Your task to perform on an android device: open chrome privacy settings Image 0: 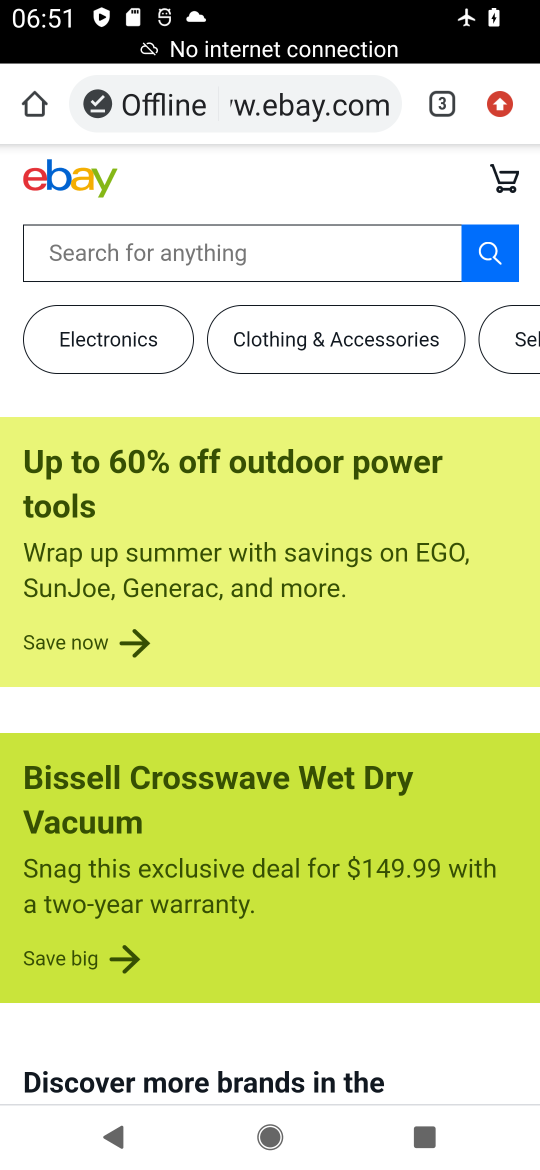
Step 0: press home button
Your task to perform on an android device: open chrome privacy settings Image 1: 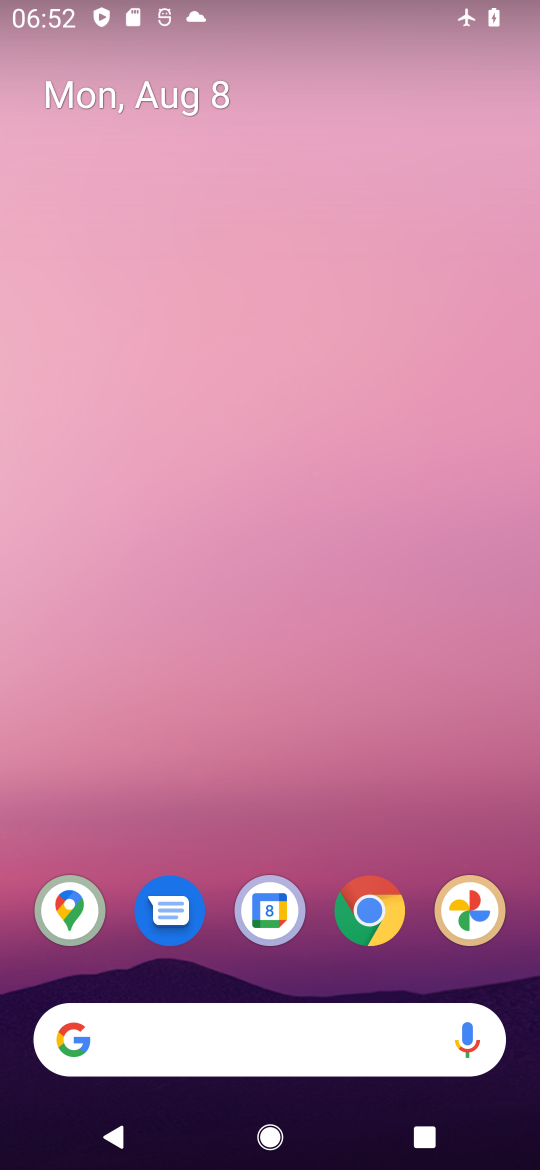
Step 1: click (367, 914)
Your task to perform on an android device: open chrome privacy settings Image 2: 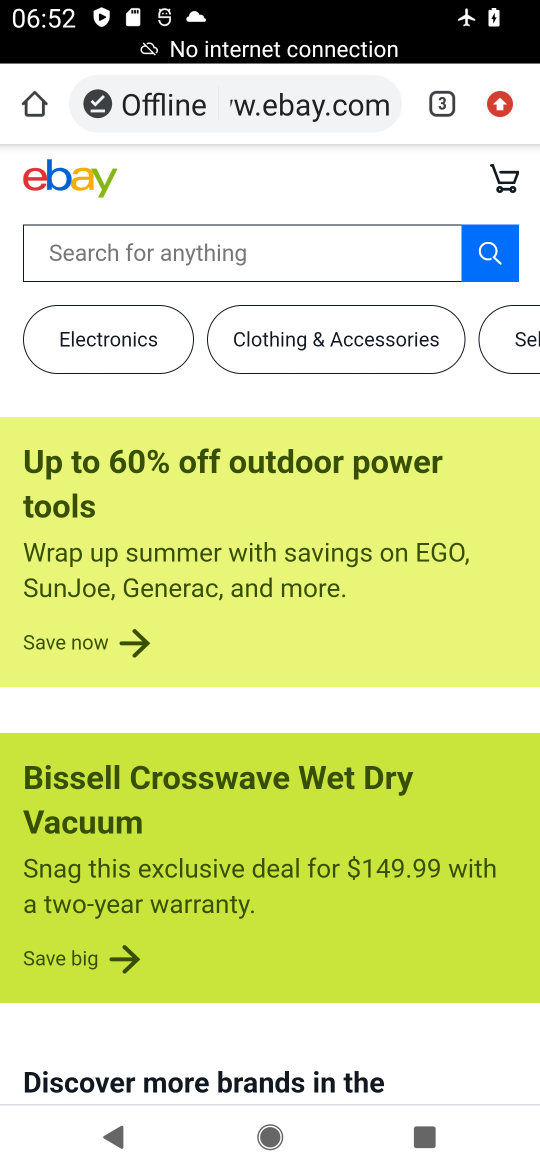
Step 2: click (496, 106)
Your task to perform on an android device: open chrome privacy settings Image 3: 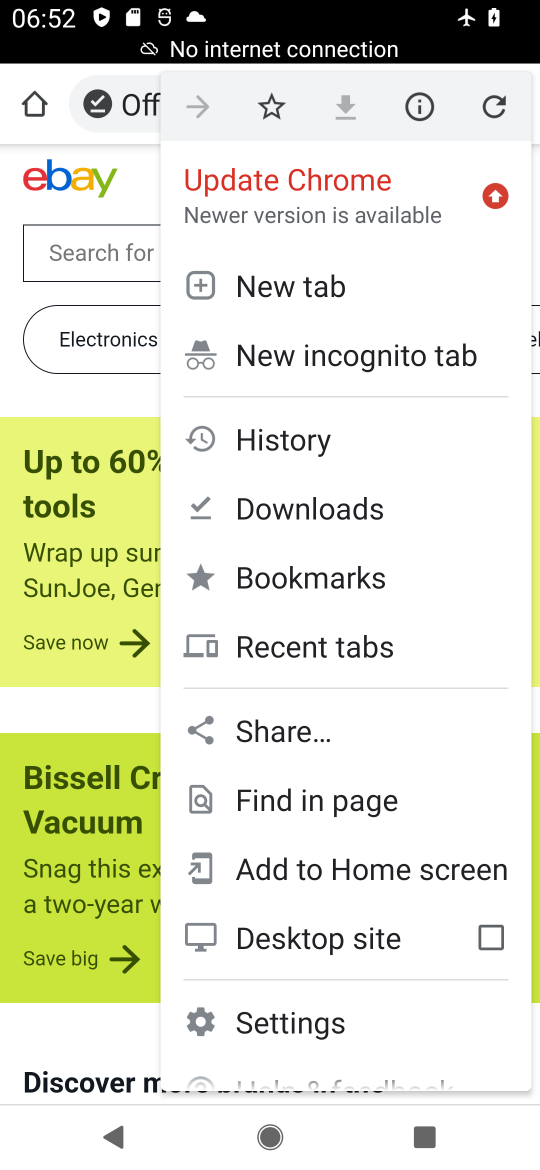
Step 3: drag from (327, 827) to (407, 658)
Your task to perform on an android device: open chrome privacy settings Image 4: 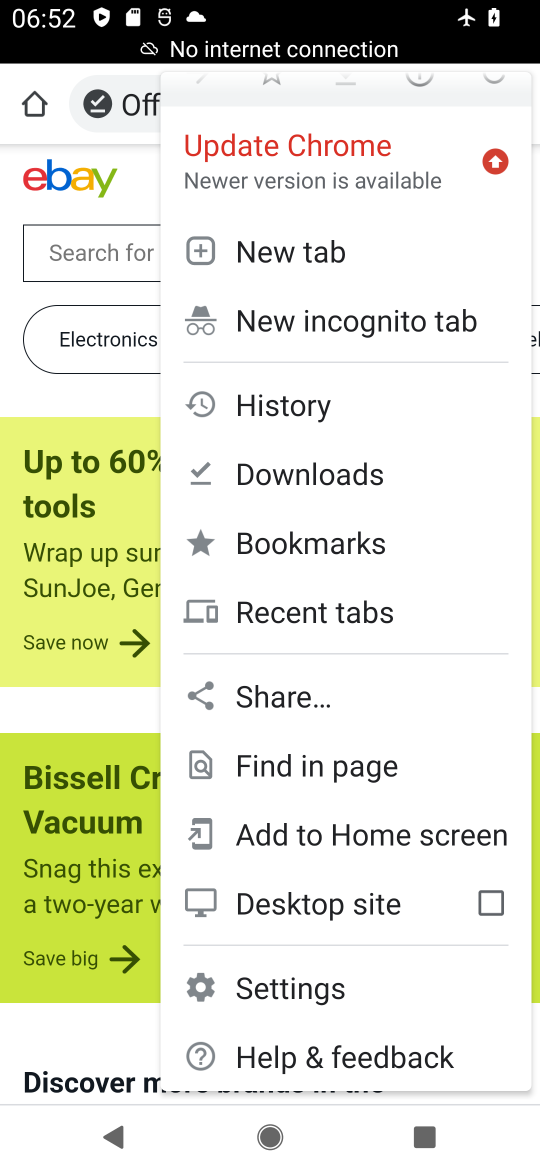
Step 4: click (307, 987)
Your task to perform on an android device: open chrome privacy settings Image 5: 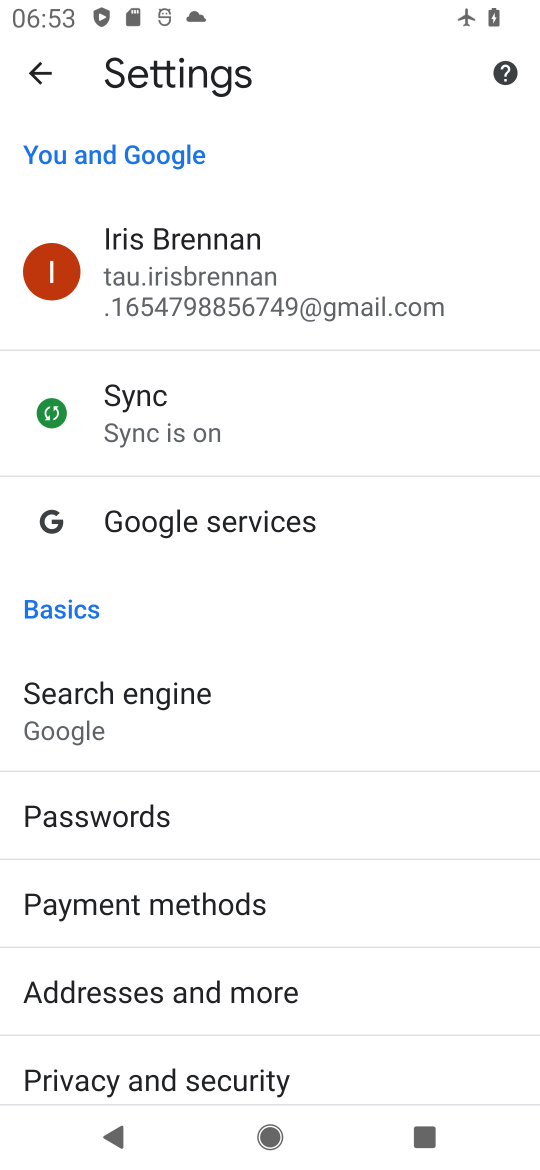
Step 5: task complete